Your task to perform on an android device: Open settings on Google Maps Image 0: 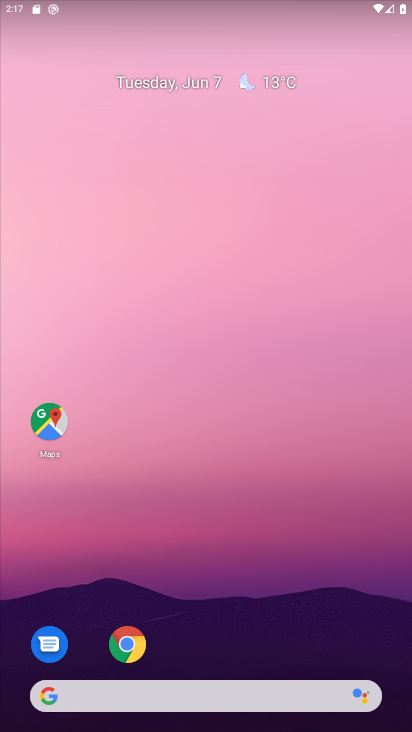
Step 0: press home button
Your task to perform on an android device: Open settings on Google Maps Image 1: 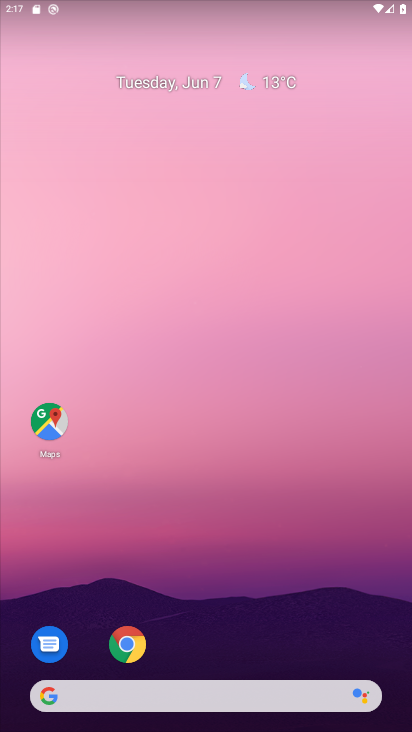
Step 1: click (273, 161)
Your task to perform on an android device: Open settings on Google Maps Image 2: 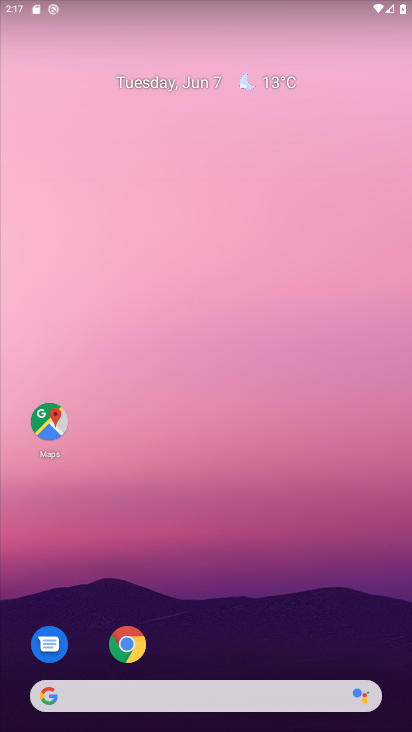
Step 2: click (48, 417)
Your task to perform on an android device: Open settings on Google Maps Image 3: 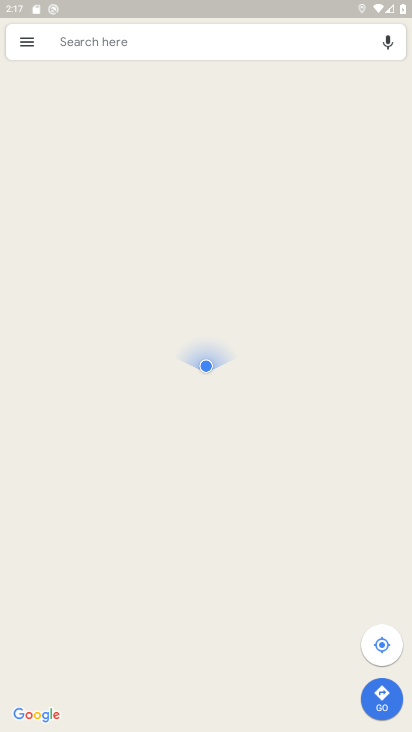
Step 3: click (31, 38)
Your task to perform on an android device: Open settings on Google Maps Image 4: 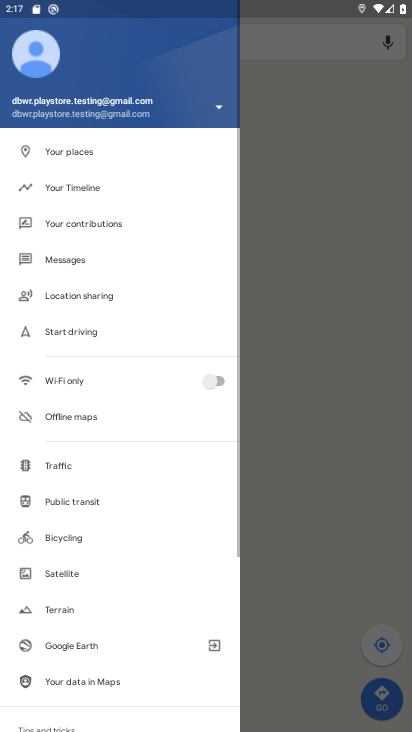
Step 4: drag from (99, 626) to (119, 187)
Your task to perform on an android device: Open settings on Google Maps Image 5: 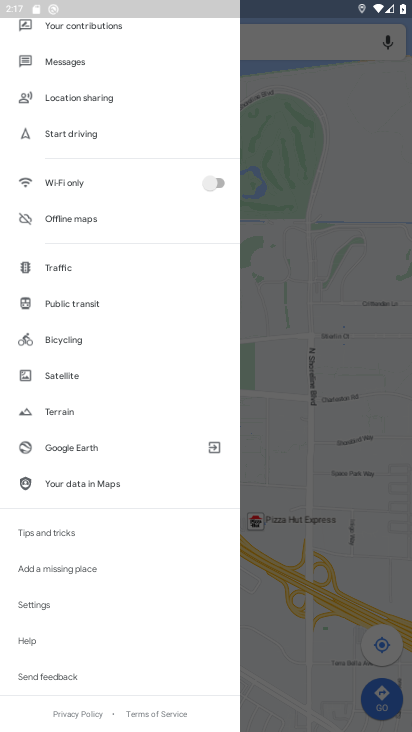
Step 5: click (59, 602)
Your task to perform on an android device: Open settings on Google Maps Image 6: 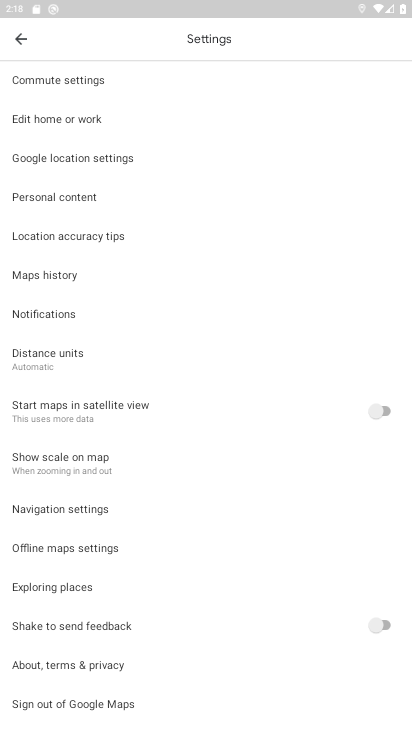
Step 6: task complete